Your task to perform on an android device: Go to Wikipedia Image 0: 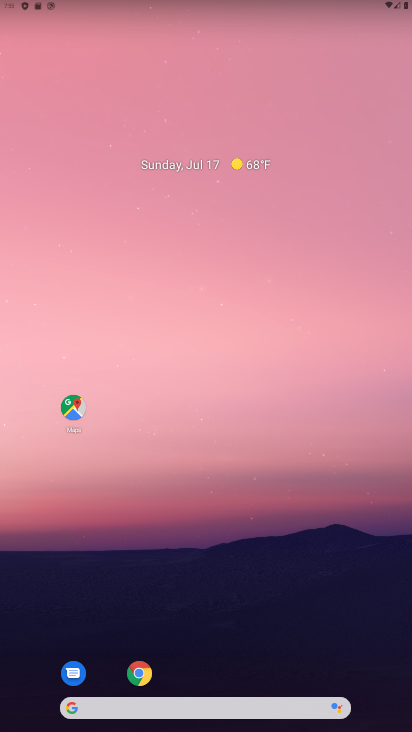
Step 0: drag from (236, 591) to (189, 2)
Your task to perform on an android device: Go to Wikipedia Image 1: 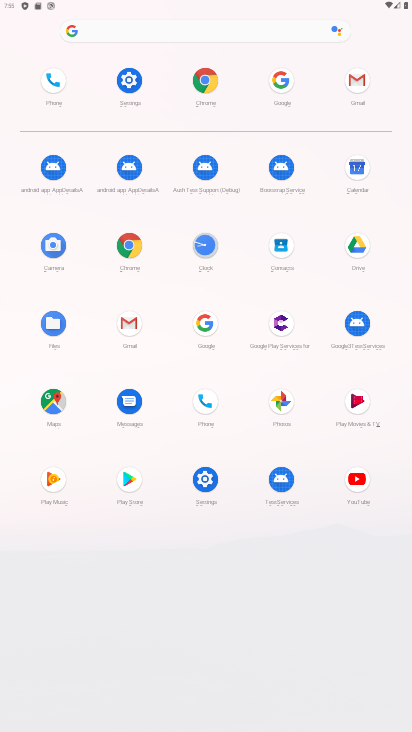
Step 1: click (209, 87)
Your task to perform on an android device: Go to Wikipedia Image 2: 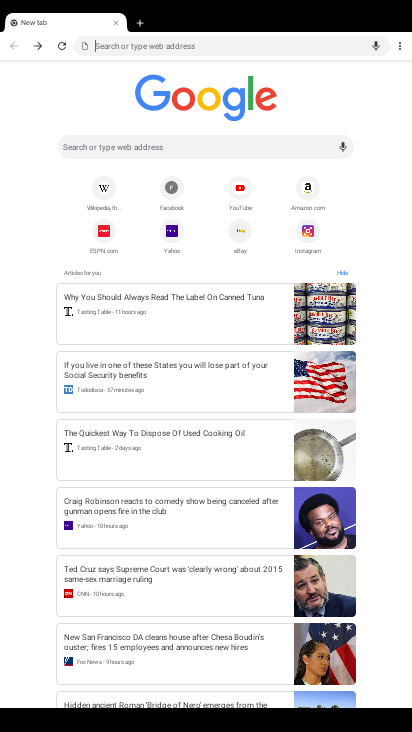
Step 2: click (97, 193)
Your task to perform on an android device: Go to Wikipedia Image 3: 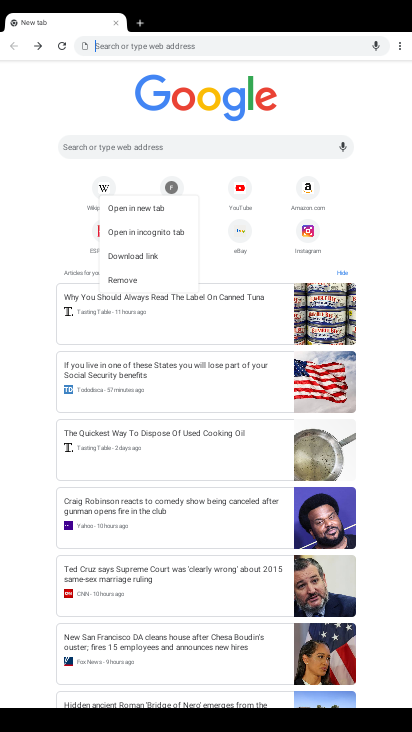
Step 3: click (106, 188)
Your task to perform on an android device: Go to Wikipedia Image 4: 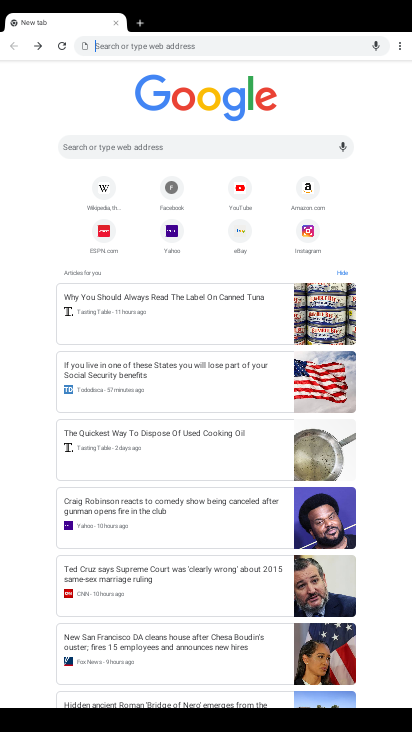
Step 4: click (109, 188)
Your task to perform on an android device: Go to Wikipedia Image 5: 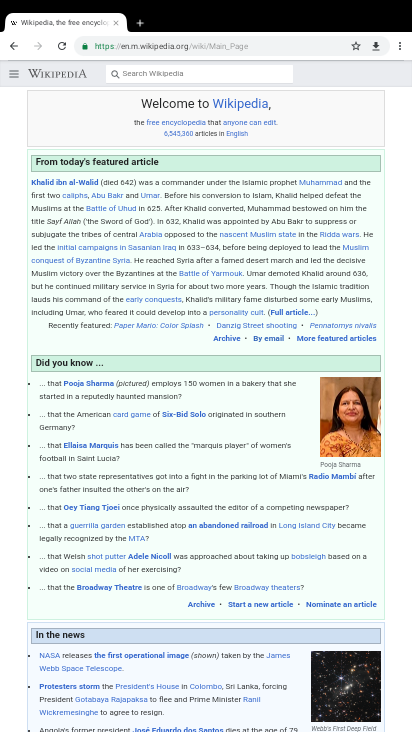
Step 5: task complete